Your task to perform on an android device: refresh tabs in the chrome app Image 0: 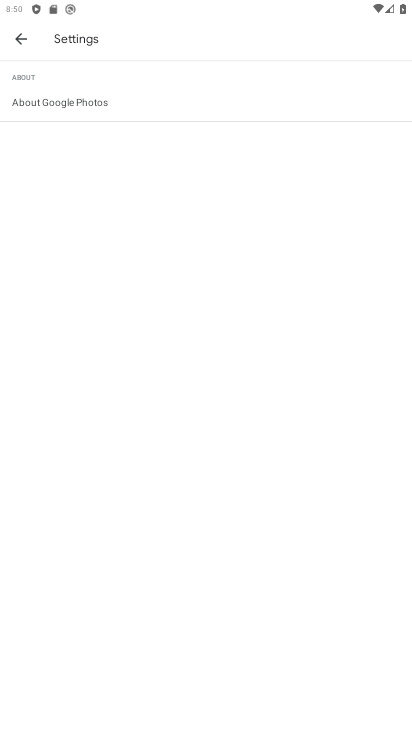
Step 0: press home button
Your task to perform on an android device: refresh tabs in the chrome app Image 1: 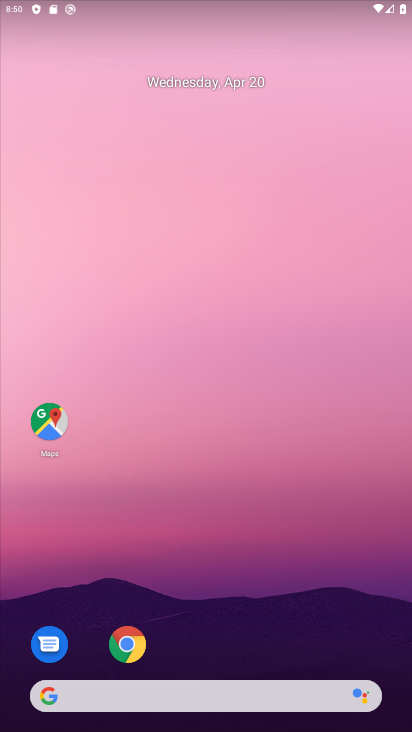
Step 1: click (132, 639)
Your task to perform on an android device: refresh tabs in the chrome app Image 2: 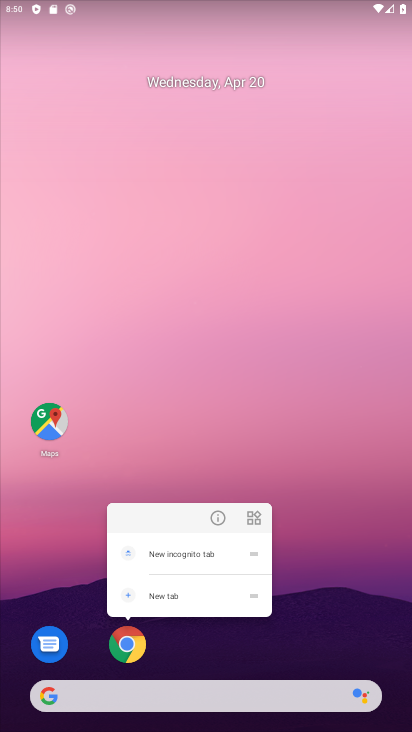
Step 2: click (126, 653)
Your task to perform on an android device: refresh tabs in the chrome app Image 3: 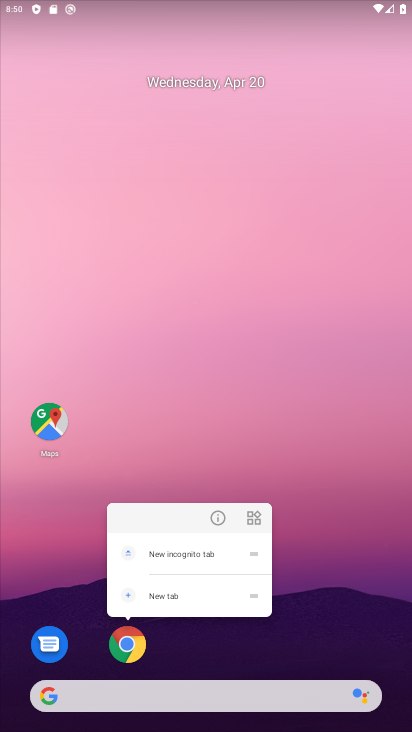
Step 3: click (126, 645)
Your task to perform on an android device: refresh tabs in the chrome app Image 4: 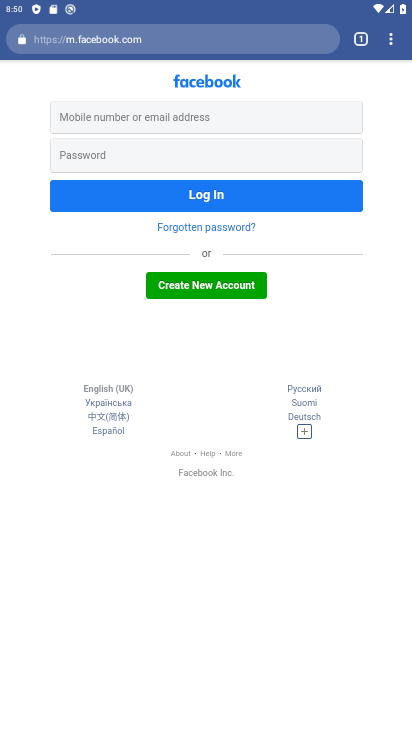
Step 4: click (391, 38)
Your task to perform on an android device: refresh tabs in the chrome app Image 5: 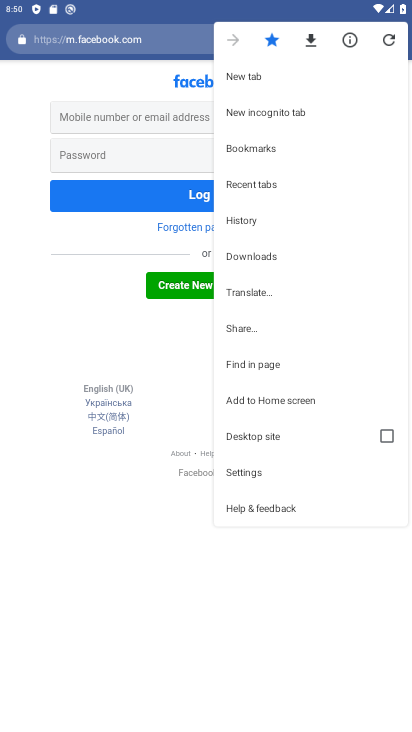
Step 5: click (387, 39)
Your task to perform on an android device: refresh tabs in the chrome app Image 6: 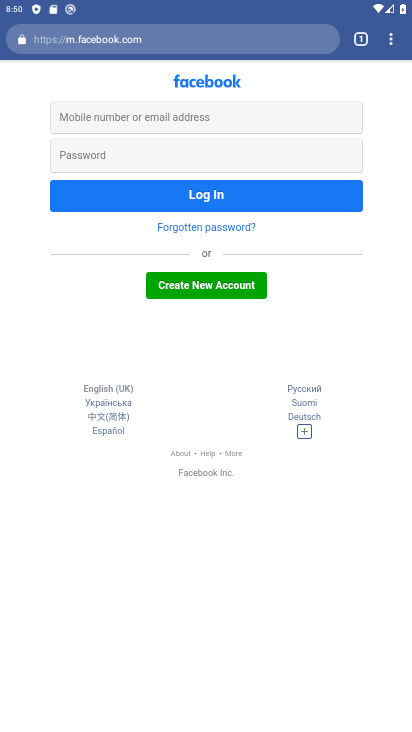
Step 6: task complete